Your task to perform on an android device: What's the weather today? Image 0: 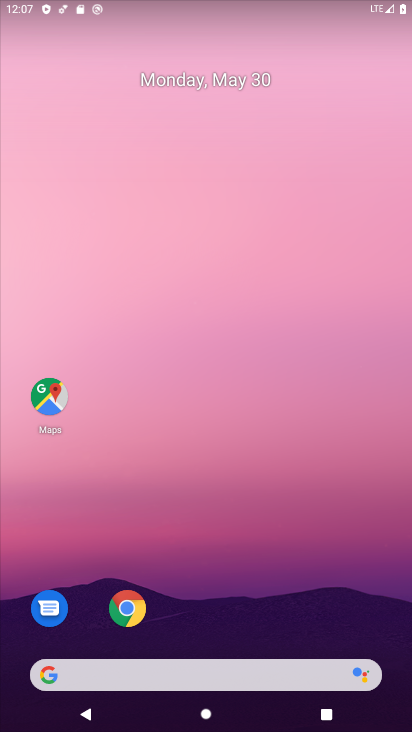
Step 0: drag from (232, 632) to (330, 40)
Your task to perform on an android device: What's the weather today? Image 1: 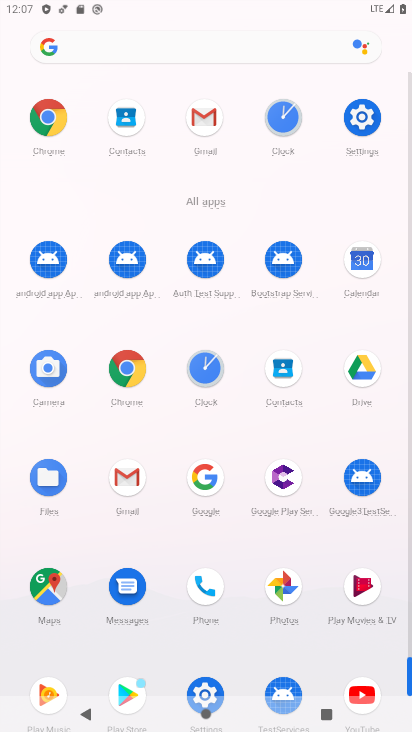
Step 1: click (257, 46)
Your task to perform on an android device: What's the weather today? Image 2: 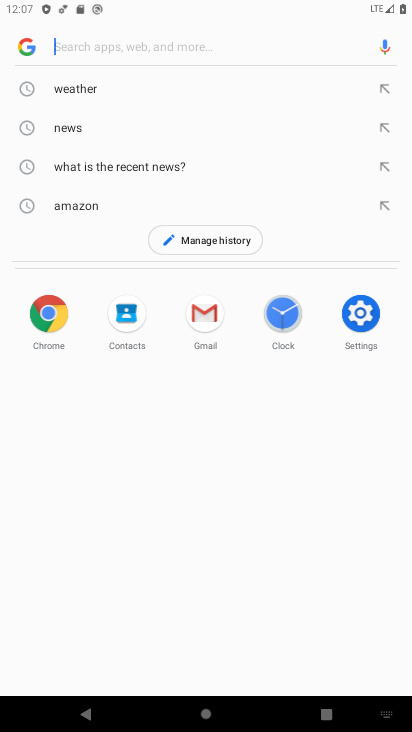
Step 2: click (111, 90)
Your task to perform on an android device: What's the weather today? Image 3: 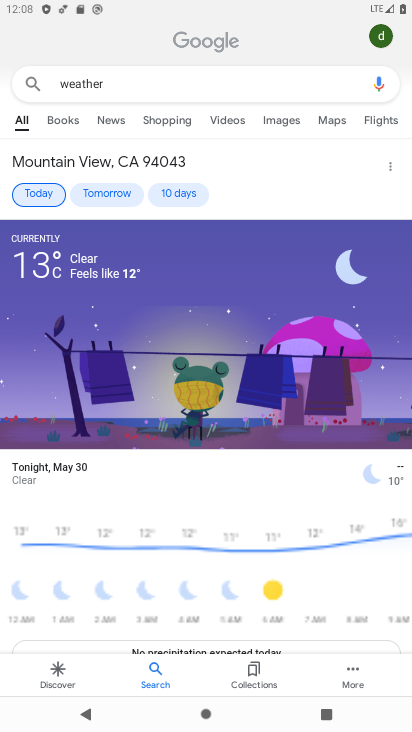
Step 3: task complete